Your task to perform on an android device: View the shopping cart on bestbuy. Add "macbook pro 15 inch" to the cart on bestbuy, then select checkout. Image 0: 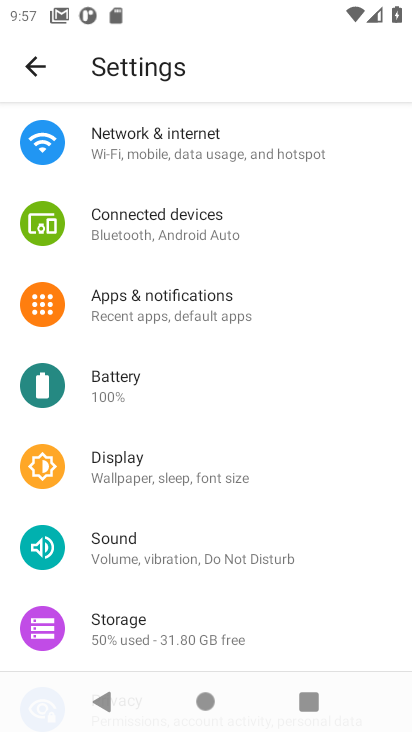
Step 0: press home button
Your task to perform on an android device: View the shopping cart on bestbuy. Add "macbook pro 15 inch" to the cart on bestbuy, then select checkout. Image 1: 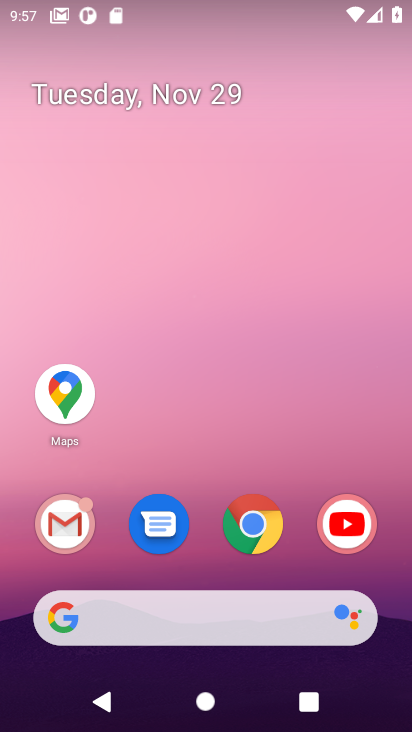
Step 1: click (256, 525)
Your task to perform on an android device: View the shopping cart on bestbuy. Add "macbook pro 15 inch" to the cart on bestbuy, then select checkout. Image 2: 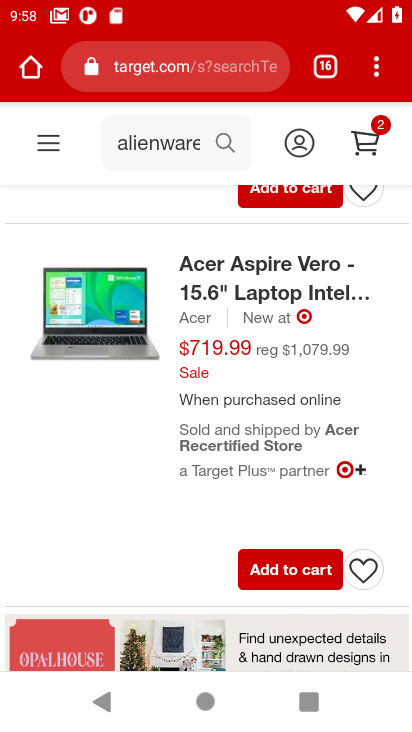
Step 2: drag from (179, 524) to (182, 438)
Your task to perform on an android device: View the shopping cart on bestbuy. Add "macbook pro 15 inch" to the cart on bestbuy, then select checkout. Image 3: 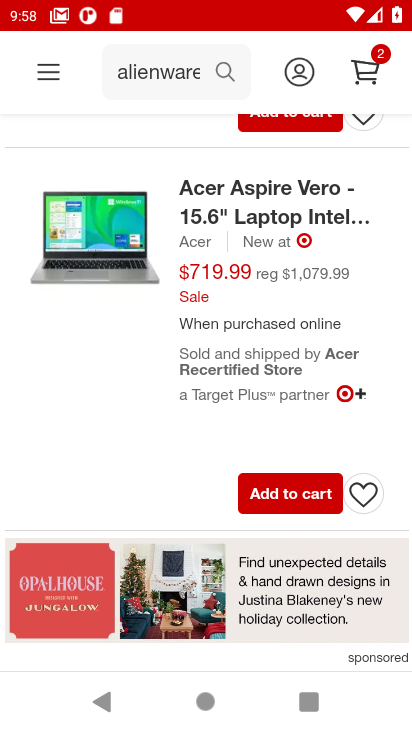
Step 3: drag from (138, 138) to (136, 361)
Your task to perform on an android device: View the shopping cart on bestbuy. Add "macbook pro 15 inch" to the cart on bestbuy, then select checkout. Image 4: 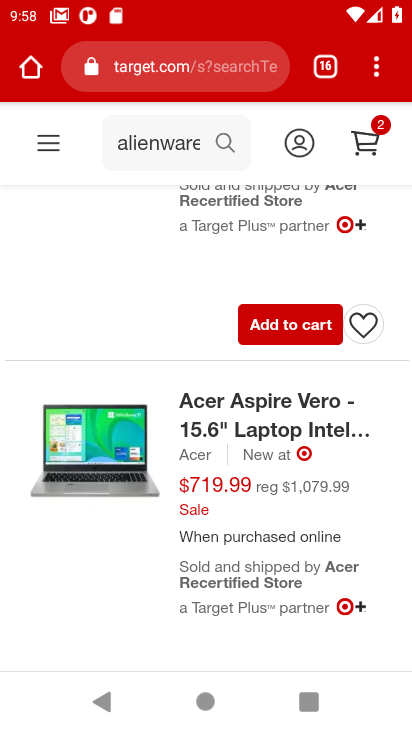
Step 4: click (157, 73)
Your task to perform on an android device: View the shopping cart on bestbuy. Add "macbook pro 15 inch" to the cart on bestbuy, then select checkout. Image 5: 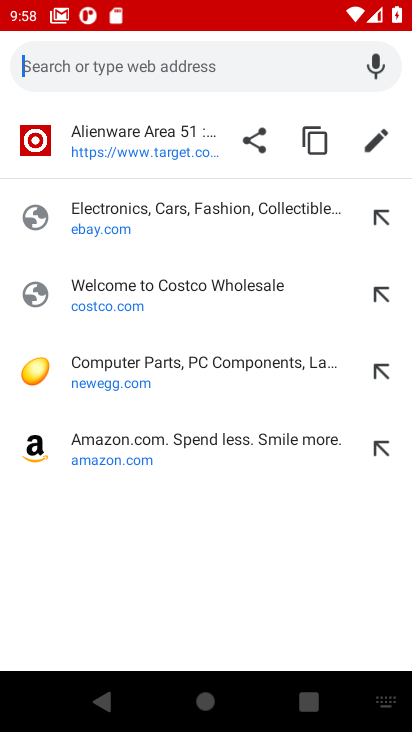
Step 5: type "bestbuy.com"
Your task to perform on an android device: View the shopping cart on bestbuy. Add "macbook pro 15 inch" to the cart on bestbuy, then select checkout. Image 6: 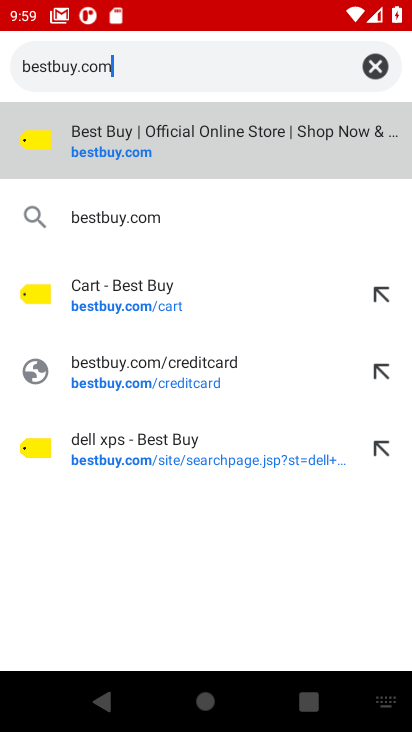
Step 6: click (90, 152)
Your task to perform on an android device: View the shopping cart on bestbuy. Add "macbook pro 15 inch" to the cart on bestbuy, then select checkout. Image 7: 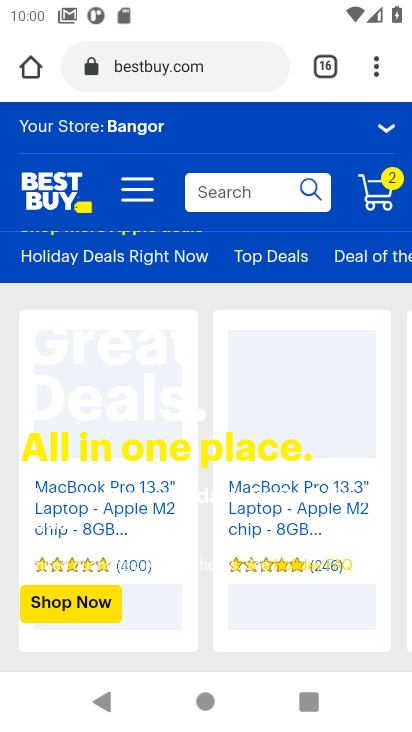
Step 7: click (384, 196)
Your task to perform on an android device: View the shopping cart on bestbuy. Add "macbook pro 15 inch" to the cart on bestbuy, then select checkout. Image 8: 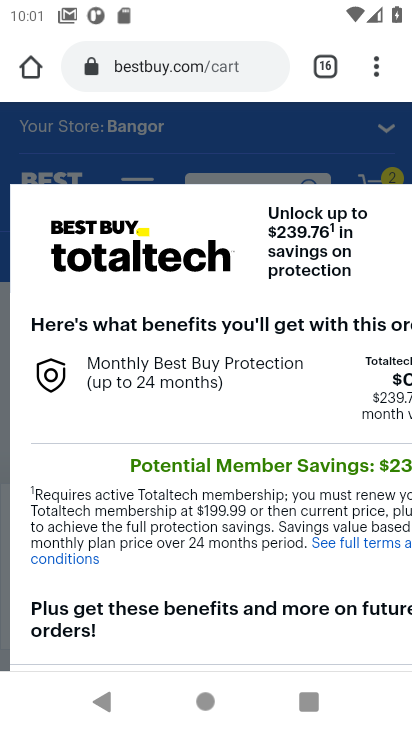
Step 8: click (279, 144)
Your task to perform on an android device: View the shopping cart on bestbuy. Add "macbook pro 15 inch" to the cart on bestbuy, then select checkout. Image 9: 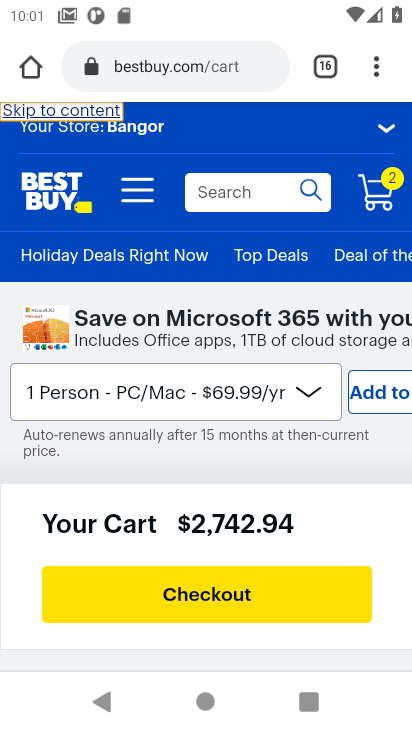
Step 9: drag from (231, 460) to (256, 214)
Your task to perform on an android device: View the shopping cart on bestbuy. Add "macbook pro 15 inch" to the cart on bestbuy, then select checkout. Image 10: 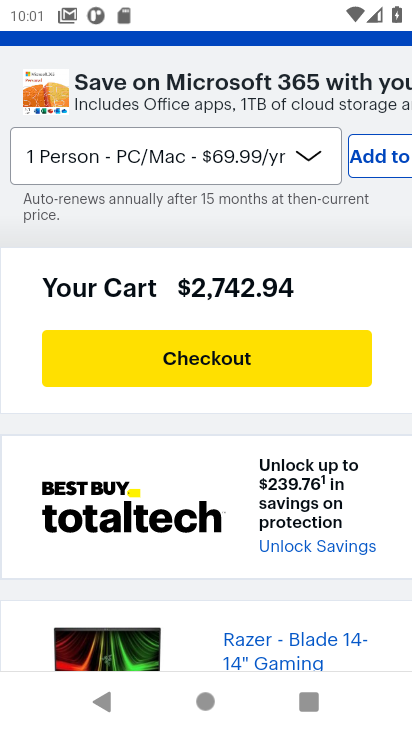
Step 10: drag from (261, 556) to (267, 288)
Your task to perform on an android device: View the shopping cart on bestbuy. Add "macbook pro 15 inch" to the cart on bestbuy, then select checkout. Image 11: 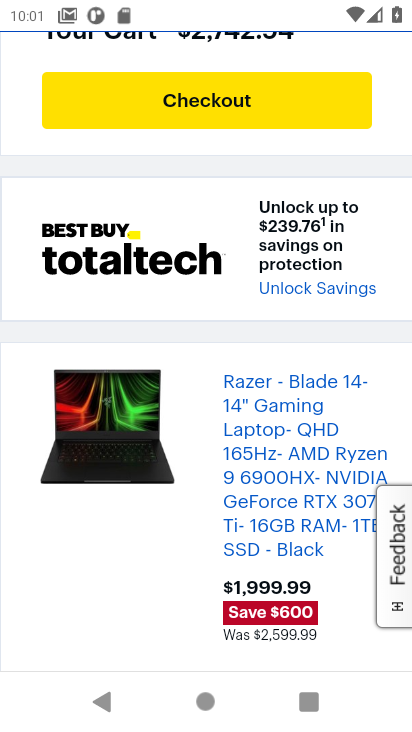
Step 11: drag from (185, 305) to (190, 634)
Your task to perform on an android device: View the shopping cart on bestbuy. Add "macbook pro 15 inch" to the cart on bestbuy, then select checkout. Image 12: 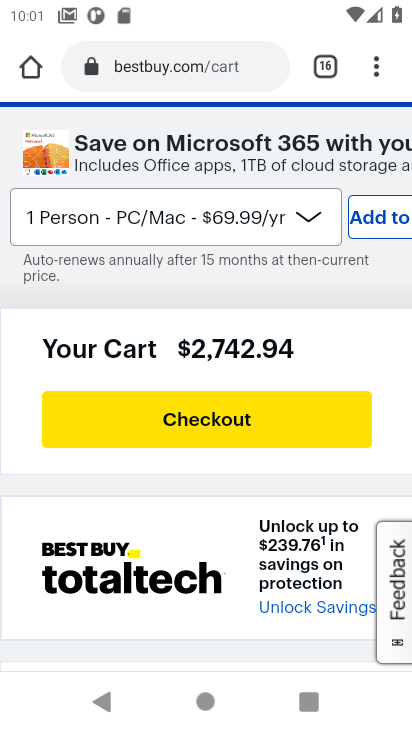
Step 12: drag from (201, 224) to (193, 470)
Your task to perform on an android device: View the shopping cart on bestbuy. Add "macbook pro 15 inch" to the cart on bestbuy, then select checkout. Image 13: 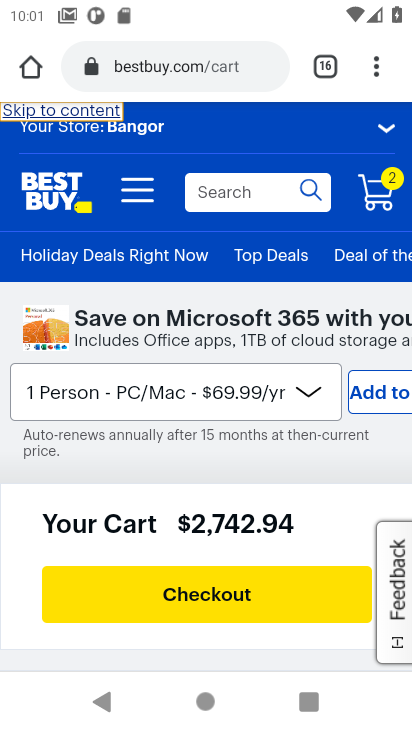
Step 13: click (218, 185)
Your task to perform on an android device: View the shopping cart on bestbuy. Add "macbook pro 15 inch" to the cart on bestbuy, then select checkout. Image 14: 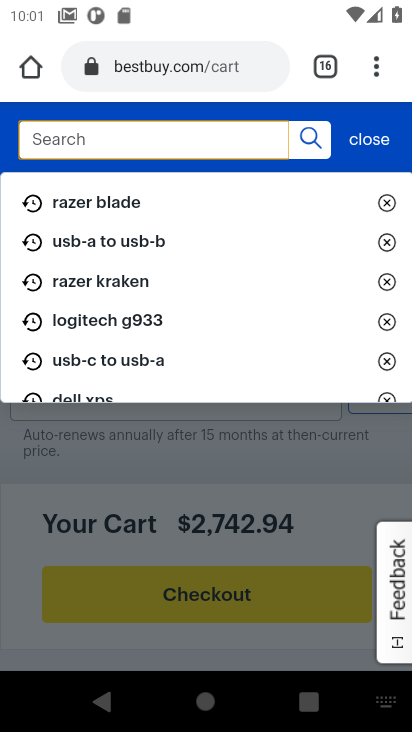
Step 14: type "macbook pro 15 inch"
Your task to perform on an android device: View the shopping cart on bestbuy. Add "macbook pro 15 inch" to the cart on bestbuy, then select checkout. Image 15: 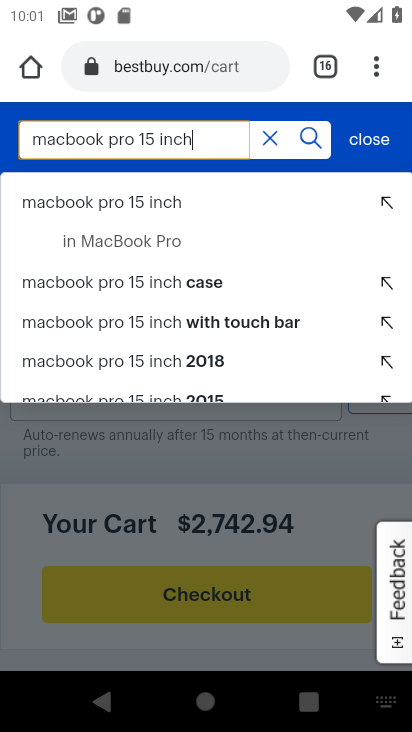
Step 15: click (87, 209)
Your task to perform on an android device: View the shopping cart on bestbuy. Add "macbook pro 15 inch" to the cart on bestbuy, then select checkout. Image 16: 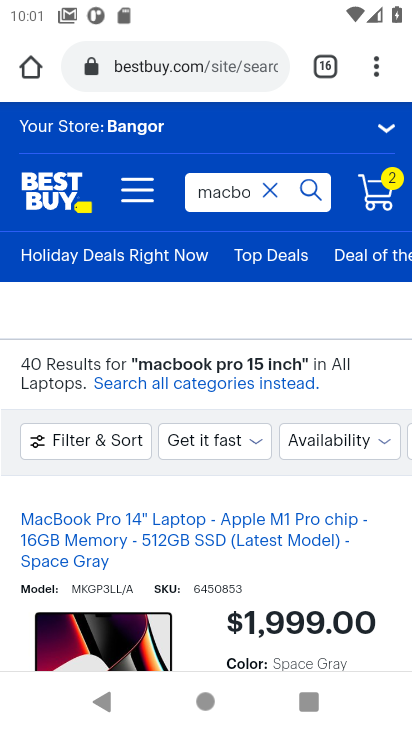
Step 16: drag from (215, 496) to (216, 298)
Your task to perform on an android device: View the shopping cart on bestbuy. Add "macbook pro 15 inch" to the cart on bestbuy, then select checkout. Image 17: 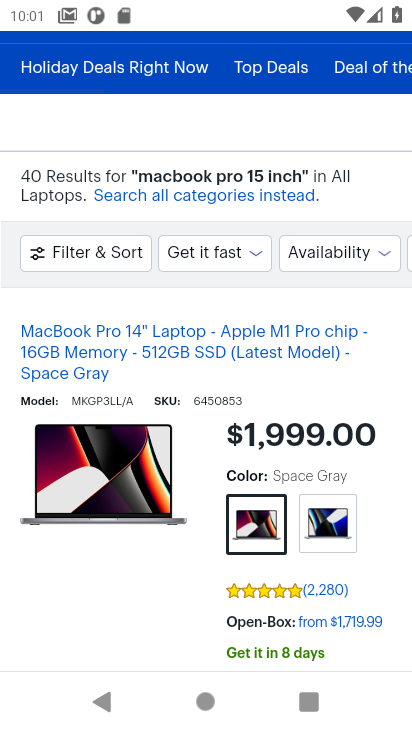
Step 17: drag from (195, 420) to (206, 239)
Your task to perform on an android device: View the shopping cart on bestbuy. Add "macbook pro 15 inch" to the cart on bestbuy, then select checkout. Image 18: 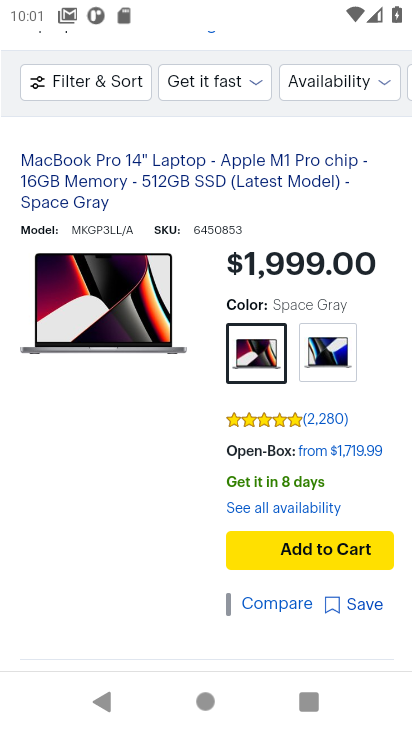
Step 18: drag from (172, 433) to (191, 181)
Your task to perform on an android device: View the shopping cart on bestbuy. Add "macbook pro 15 inch" to the cart on bestbuy, then select checkout. Image 19: 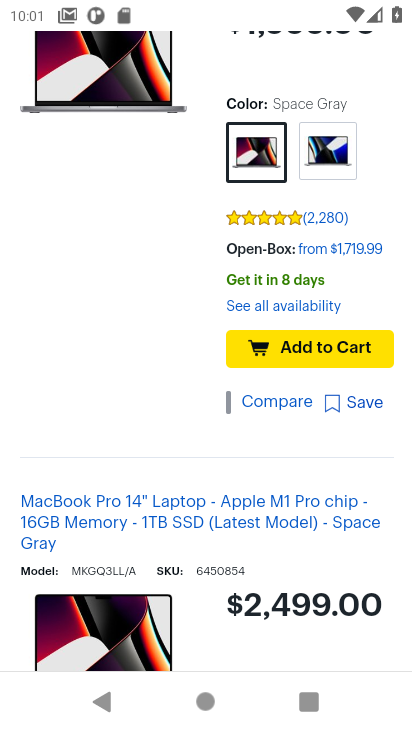
Step 19: drag from (171, 440) to (177, 177)
Your task to perform on an android device: View the shopping cart on bestbuy. Add "macbook pro 15 inch" to the cart on bestbuy, then select checkout. Image 20: 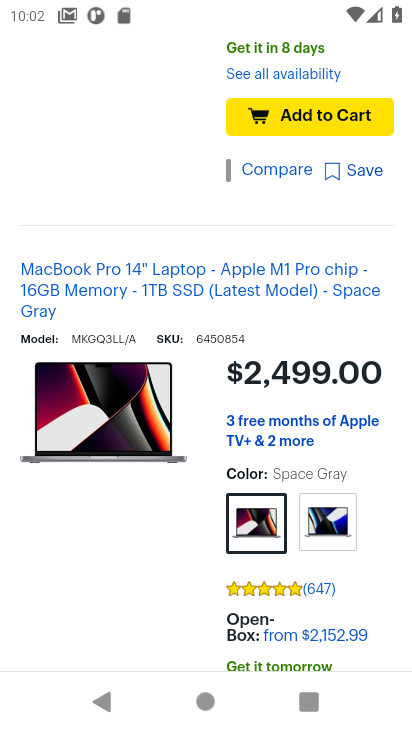
Step 20: drag from (167, 446) to (162, 233)
Your task to perform on an android device: View the shopping cart on bestbuy. Add "macbook pro 15 inch" to the cart on bestbuy, then select checkout. Image 21: 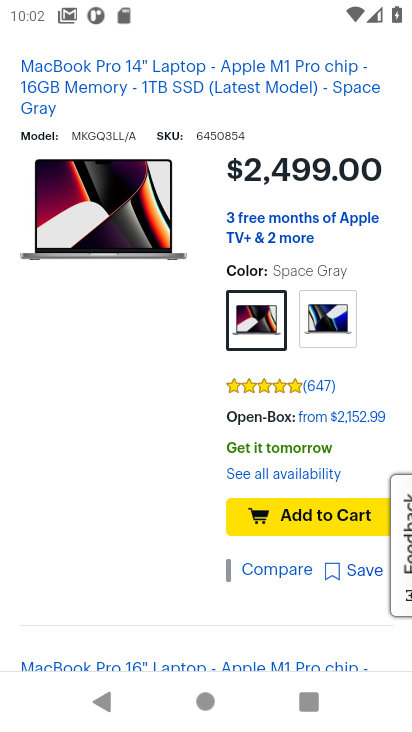
Step 21: drag from (140, 522) to (149, 272)
Your task to perform on an android device: View the shopping cart on bestbuy. Add "macbook pro 15 inch" to the cart on bestbuy, then select checkout. Image 22: 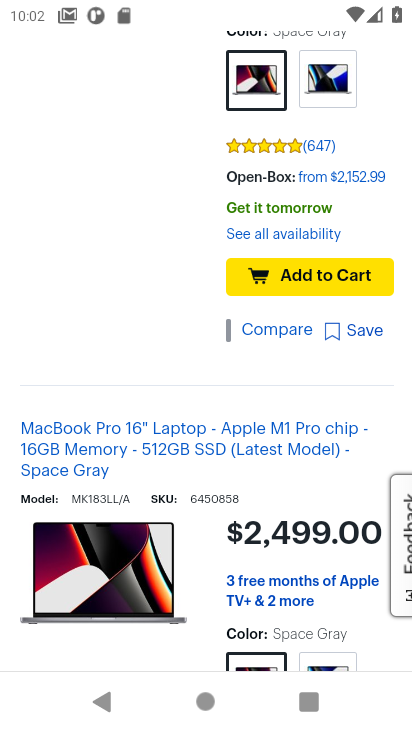
Step 22: drag from (139, 488) to (148, 286)
Your task to perform on an android device: View the shopping cart on bestbuy. Add "macbook pro 15 inch" to the cart on bestbuy, then select checkout. Image 23: 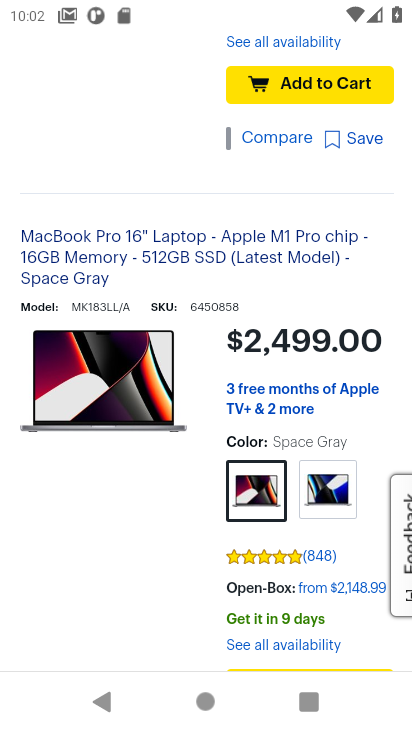
Step 23: drag from (150, 508) to (164, 280)
Your task to perform on an android device: View the shopping cart on bestbuy. Add "macbook pro 15 inch" to the cart on bestbuy, then select checkout. Image 24: 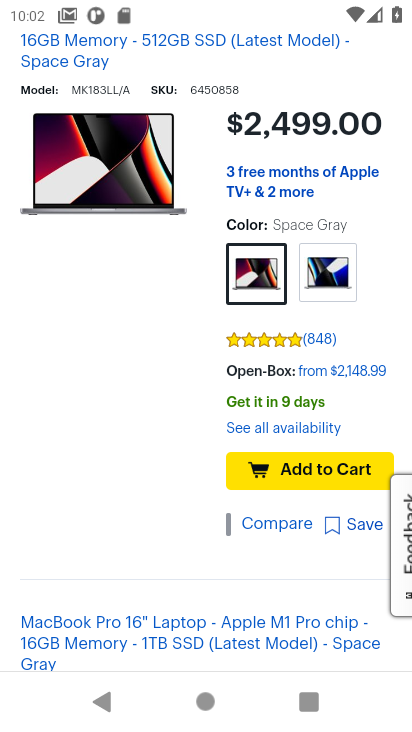
Step 24: drag from (157, 526) to (146, 222)
Your task to perform on an android device: View the shopping cart on bestbuy. Add "macbook pro 15 inch" to the cart on bestbuy, then select checkout. Image 25: 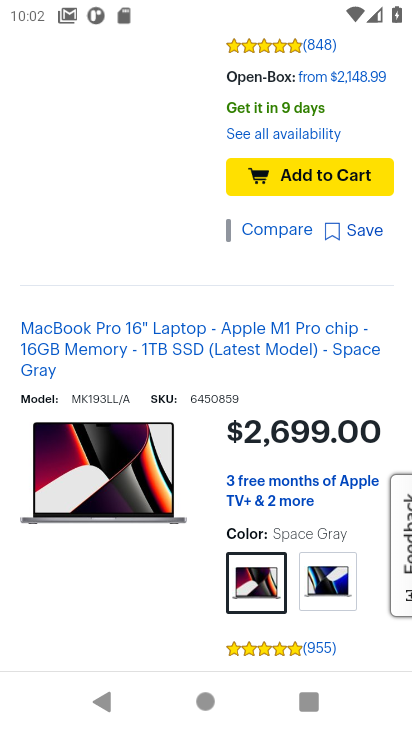
Step 25: drag from (142, 557) to (157, 237)
Your task to perform on an android device: View the shopping cart on bestbuy. Add "macbook pro 15 inch" to the cart on bestbuy, then select checkout. Image 26: 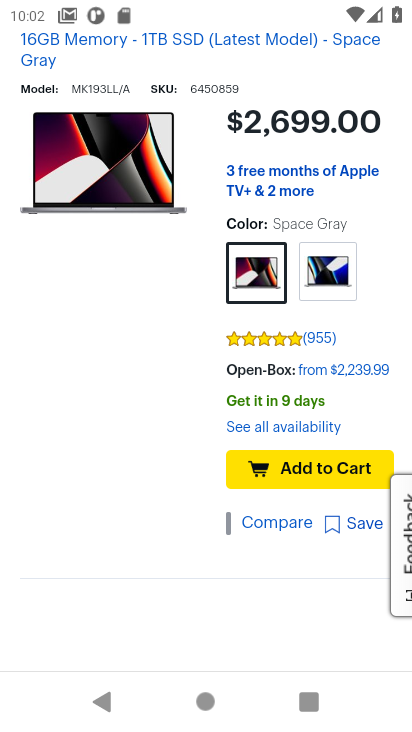
Step 26: drag from (116, 483) to (129, 222)
Your task to perform on an android device: View the shopping cart on bestbuy. Add "macbook pro 15 inch" to the cart on bestbuy, then select checkout. Image 27: 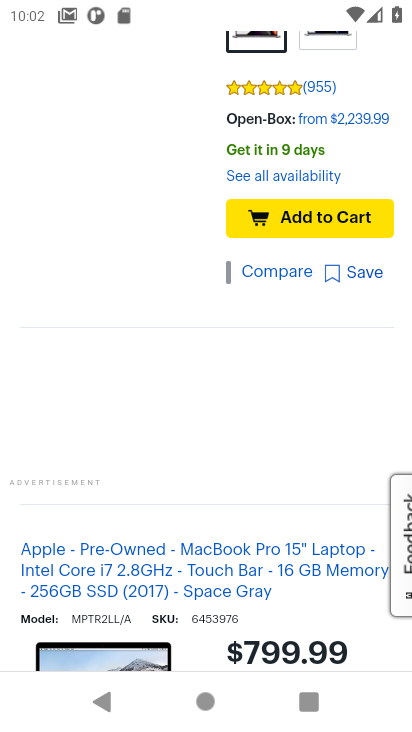
Step 27: drag from (137, 473) to (138, 281)
Your task to perform on an android device: View the shopping cart on bestbuy. Add "macbook pro 15 inch" to the cart on bestbuy, then select checkout. Image 28: 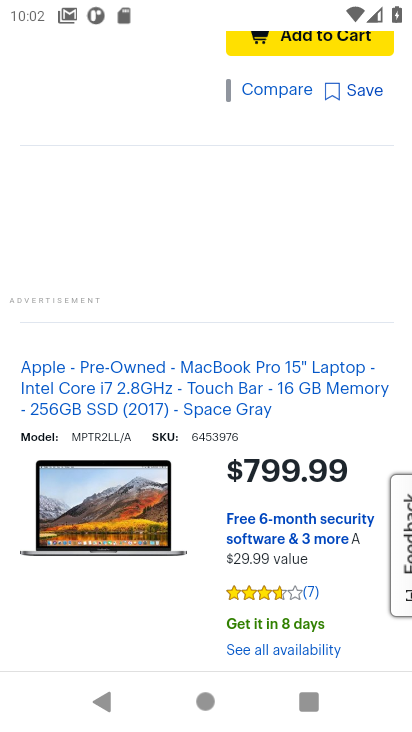
Step 28: drag from (162, 586) to (171, 429)
Your task to perform on an android device: View the shopping cart on bestbuy. Add "macbook pro 15 inch" to the cart on bestbuy, then select checkout. Image 29: 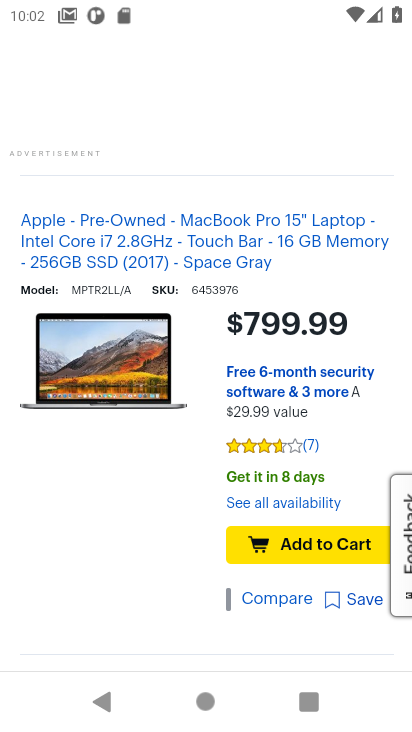
Step 29: click (301, 545)
Your task to perform on an android device: View the shopping cart on bestbuy. Add "macbook pro 15 inch" to the cart on bestbuy, then select checkout. Image 30: 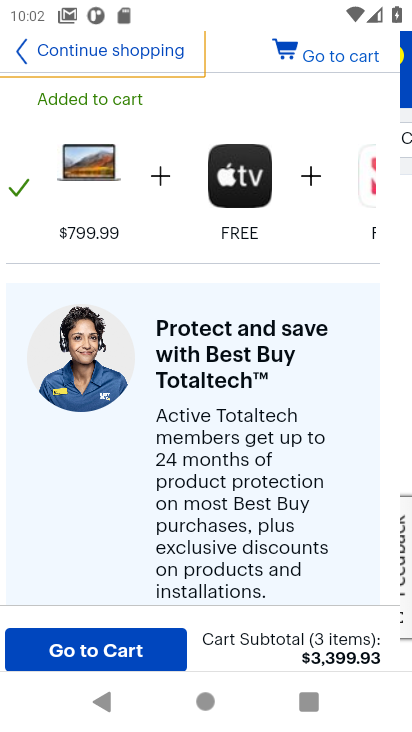
Step 30: task complete